Your task to perform on an android device: open app "The Home Depot" (install if not already installed) Image 0: 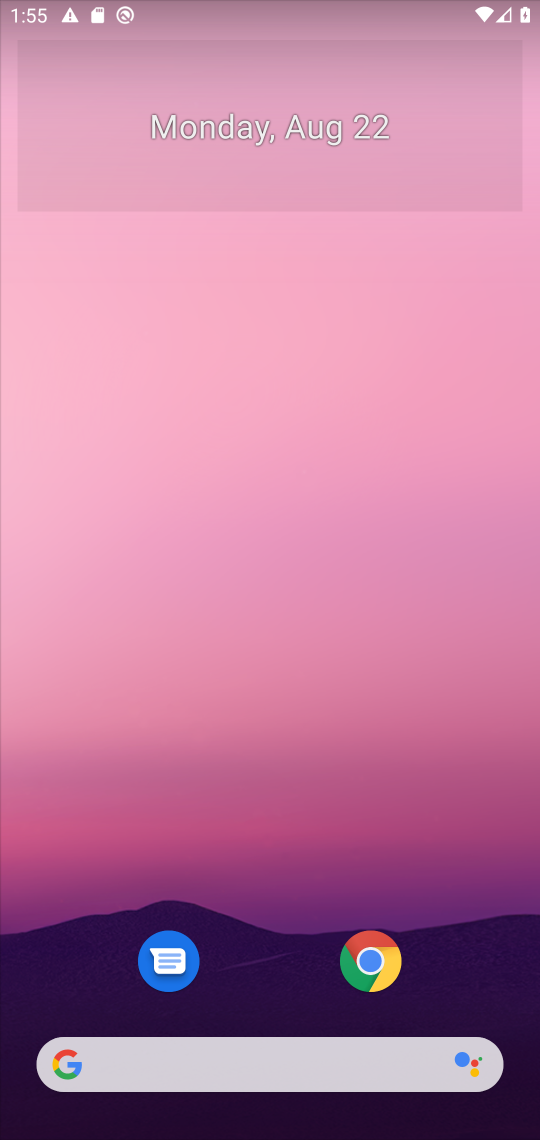
Step 0: press home button
Your task to perform on an android device: open app "The Home Depot" (install if not already installed) Image 1: 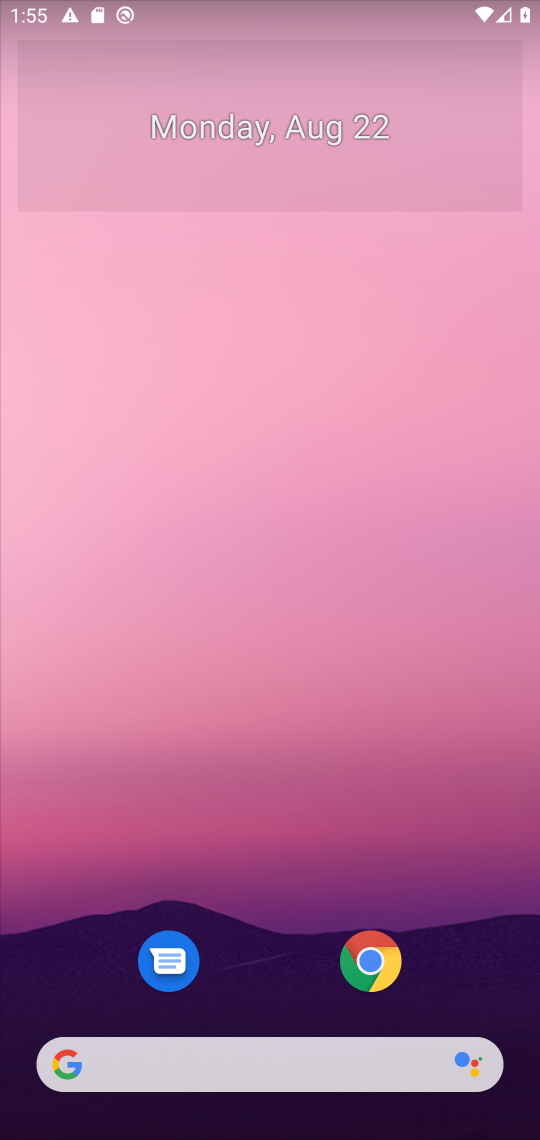
Step 1: drag from (468, 949) to (458, 223)
Your task to perform on an android device: open app "The Home Depot" (install if not already installed) Image 2: 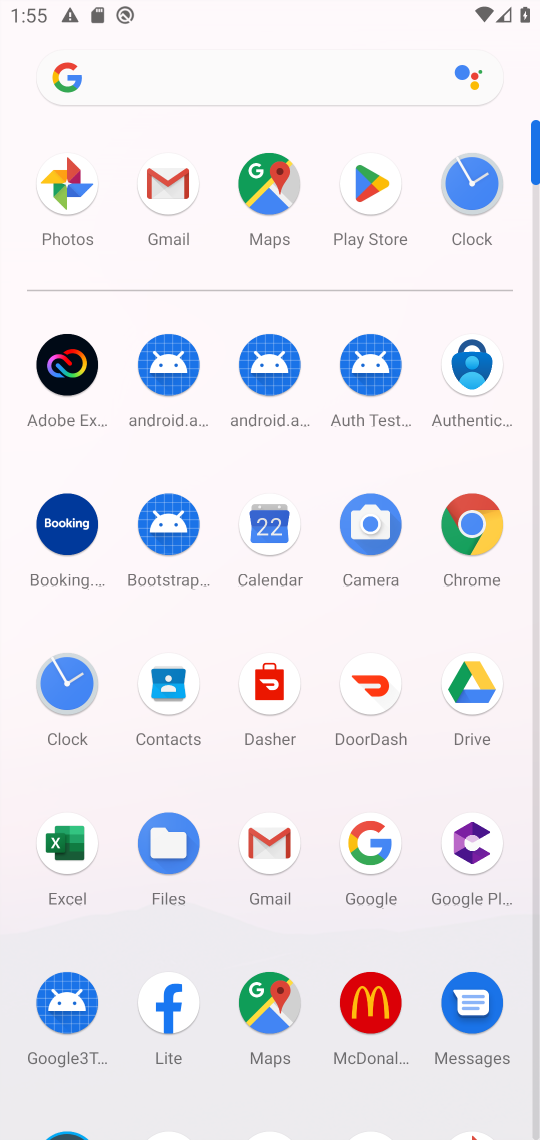
Step 2: click (368, 188)
Your task to perform on an android device: open app "The Home Depot" (install if not already installed) Image 3: 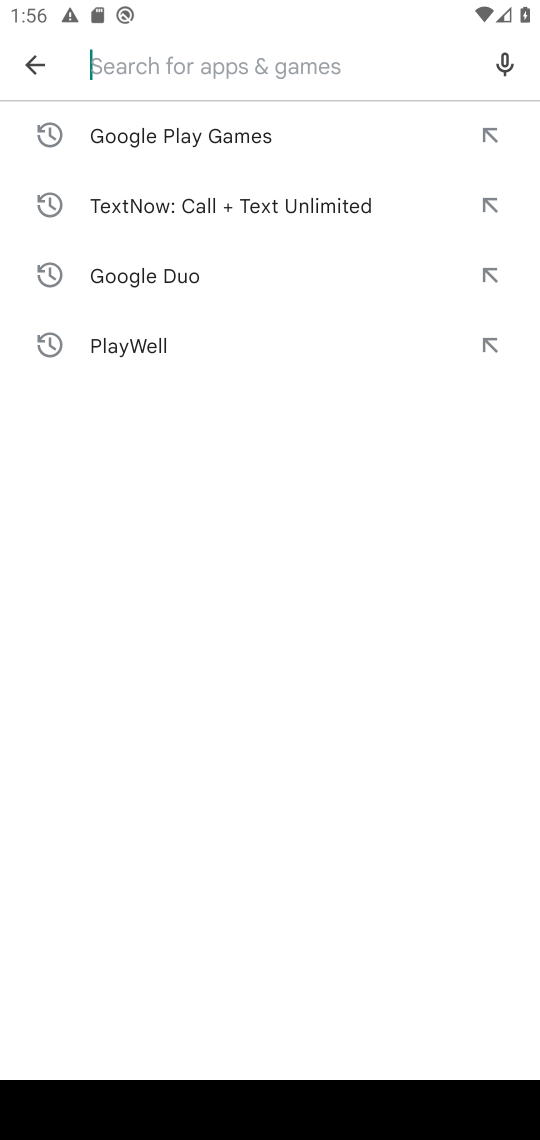
Step 3: type "The Home Depot"
Your task to perform on an android device: open app "The Home Depot" (install if not already installed) Image 4: 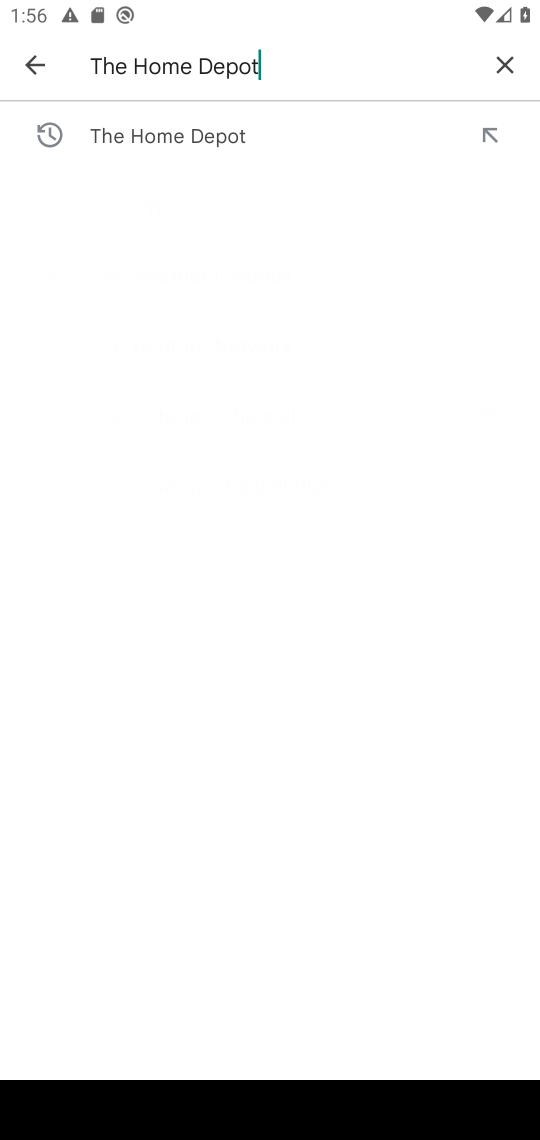
Step 4: press enter
Your task to perform on an android device: open app "The Home Depot" (install if not already installed) Image 5: 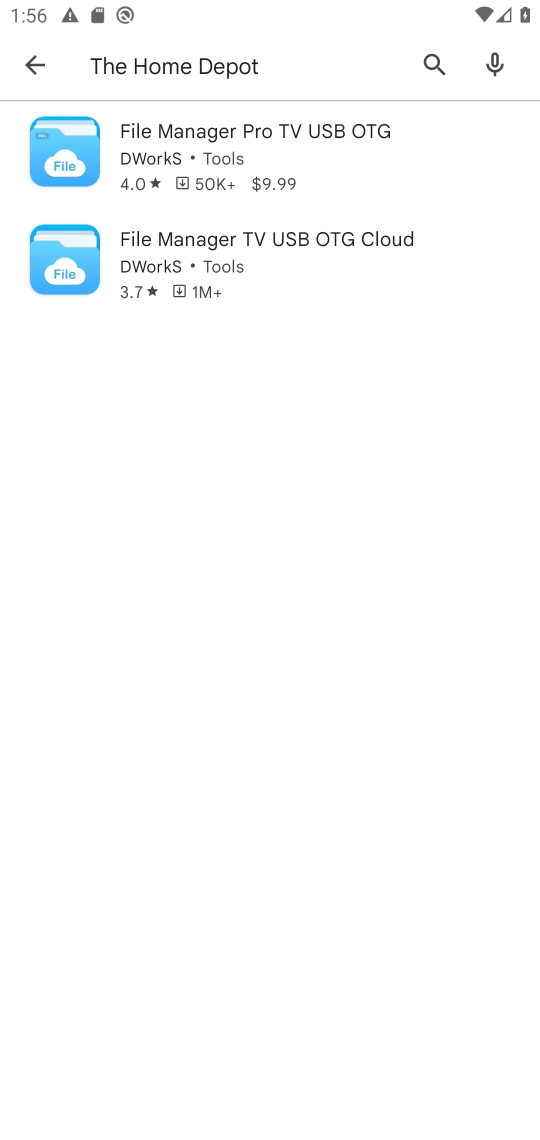
Step 5: task complete